Your task to perform on an android device: Open calendar and show me the fourth week of next month Image 0: 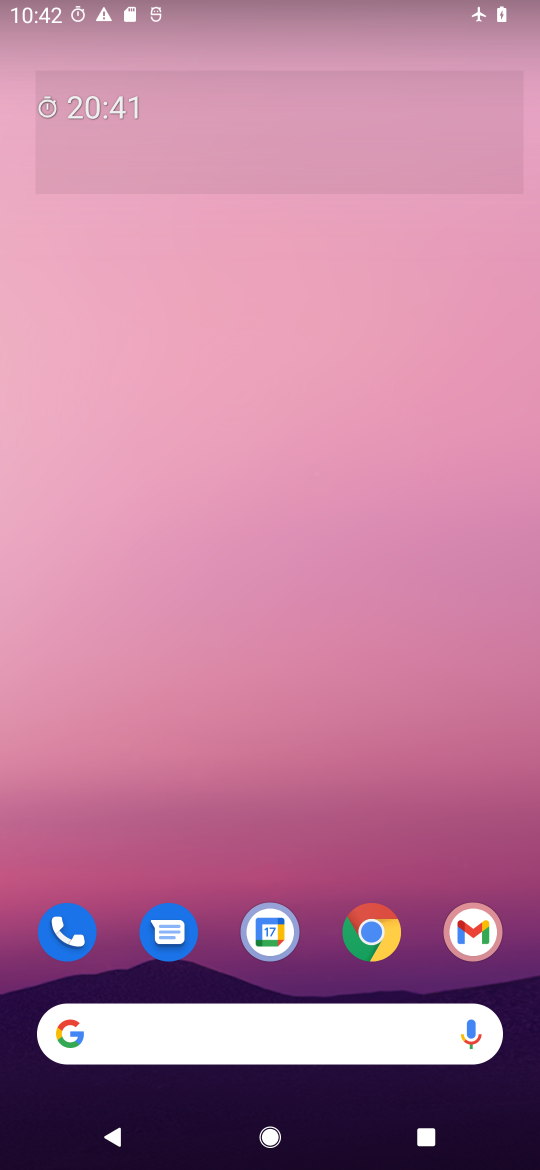
Step 0: drag from (209, 729) to (153, 144)
Your task to perform on an android device: Open calendar and show me the fourth week of next month Image 1: 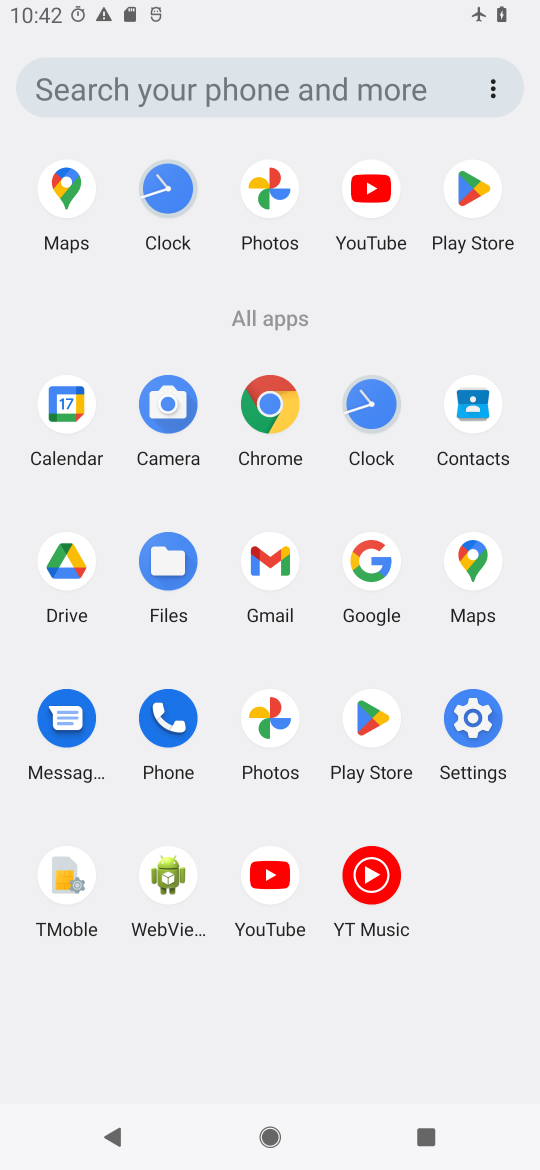
Step 1: click (58, 420)
Your task to perform on an android device: Open calendar and show me the fourth week of next month Image 2: 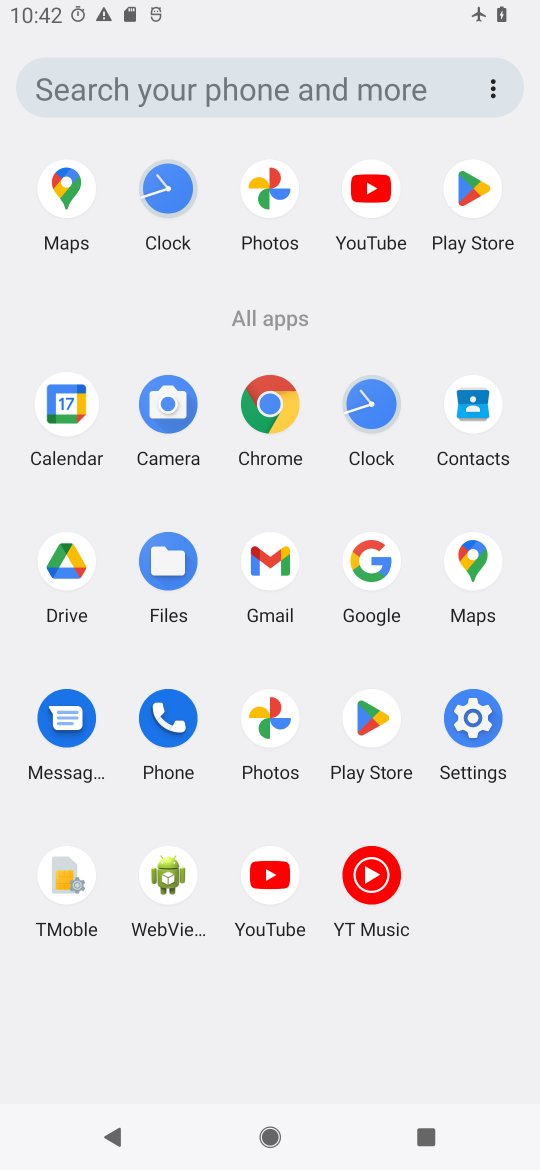
Step 2: click (83, 444)
Your task to perform on an android device: Open calendar and show me the fourth week of next month Image 3: 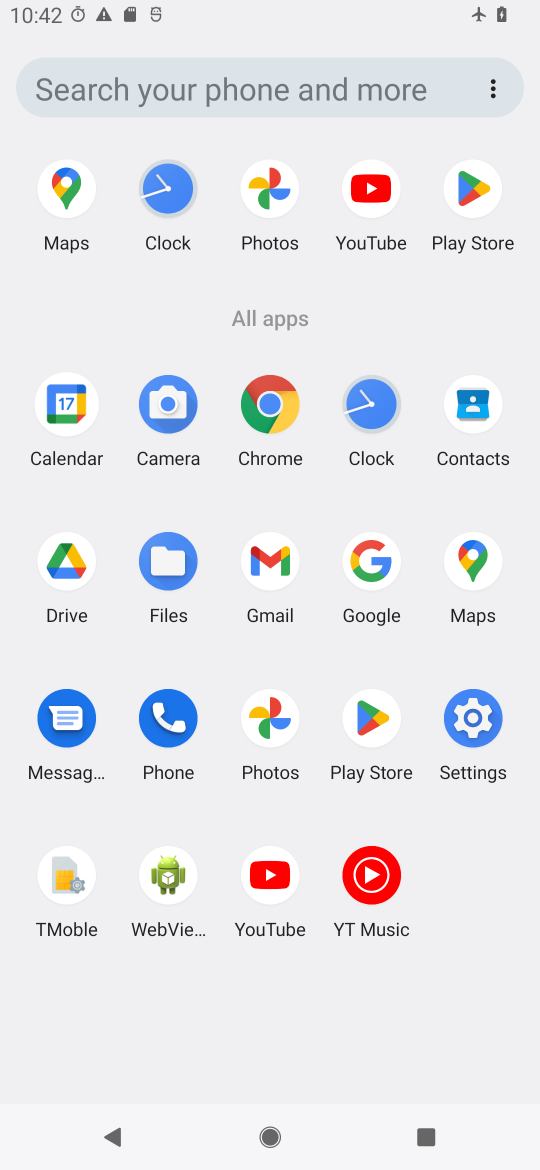
Step 3: click (70, 432)
Your task to perform on an android device: Open calendar and show me the fourth week of next month Image 4: 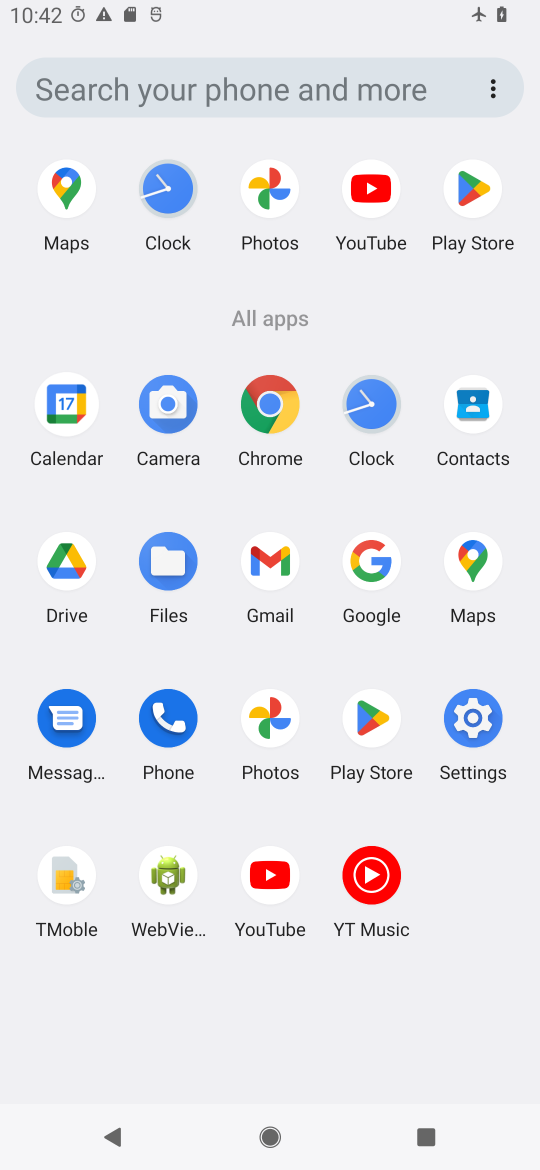
Step 4: drag from (200, 749) to (200, 334)
Your task to perform on an android device: Open calendar and show me the fourth week of next month Image 5: 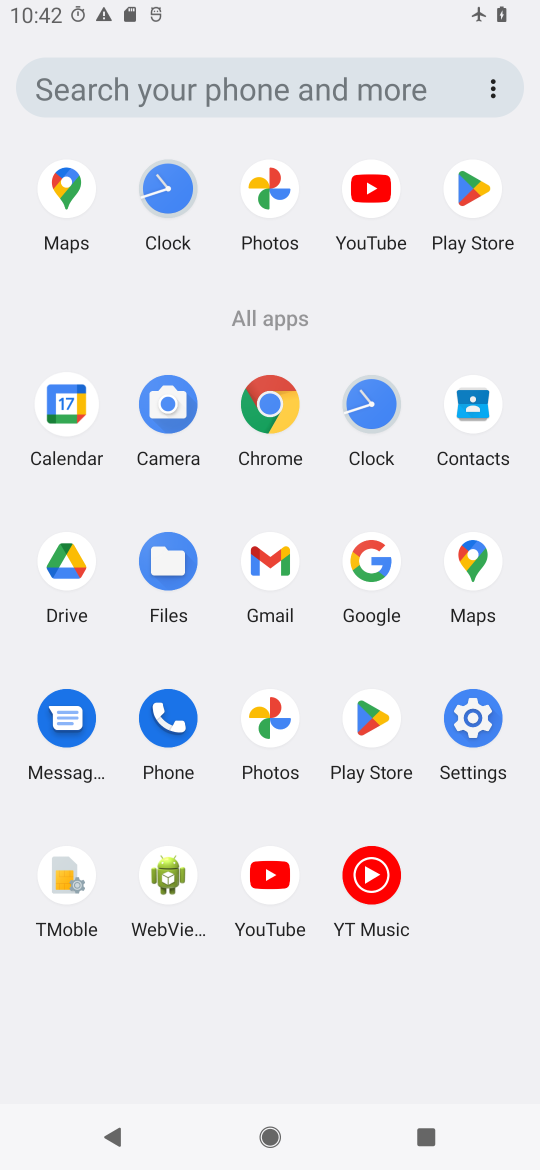
Step 5: click (70, 411)
Your task to perform on an android device: Open calendar and show me the fourth week of next month Image 6: 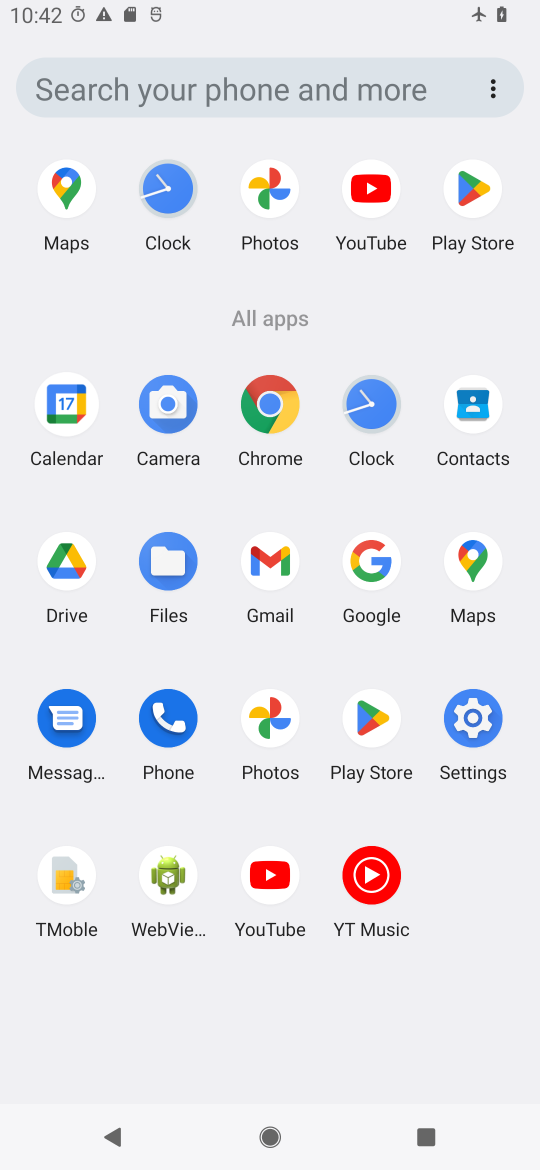
Step 6: task complete